Your task to perform on an android device: Open calendar and show me the fourth week of next month Image 0: 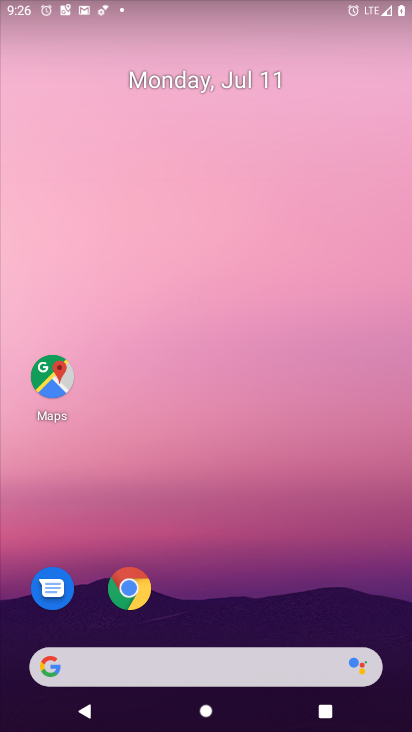
Step 0: drag from (203, 667) to (342, 125)
Your task to perform on an android device: Open calendar and show me the fourth week of next month Image 1: 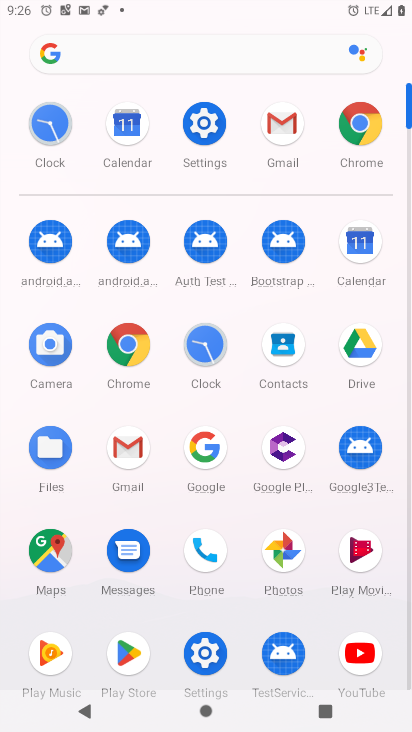
Step 1: click (363, 253)
Your task to perform on an android device: Open calendar and show me the fourth week of next month Image 2: 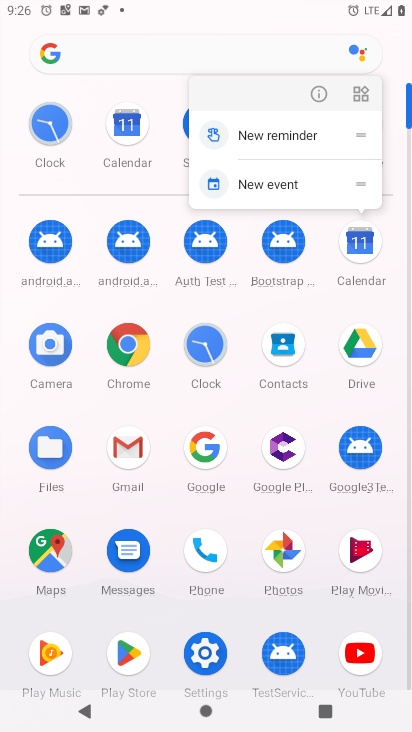
Step 2: click (365, 250)
Your task to perform on an android device: Open calendar and show me the fourth week of next month Image 3: 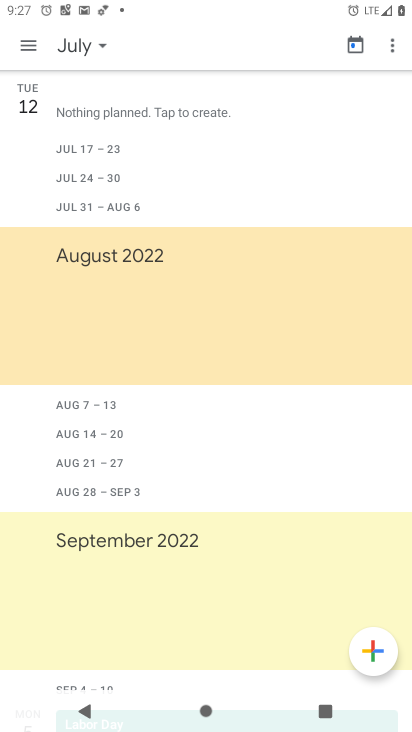
Step 3: click (74, 42)
Your task to perform on an android device: Open calendar and show me the fourth week of next month Image 4: 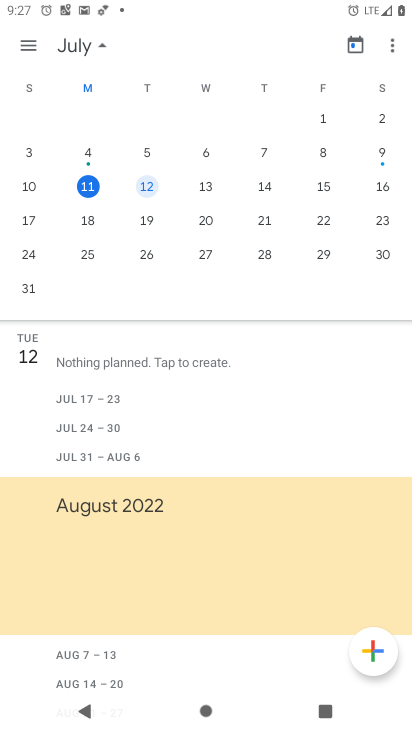
Step 4: drag from (340, 210) to (9, 225)
Your task to perform on an android device: Open calendar and show me the fourth week of next month Image 5: 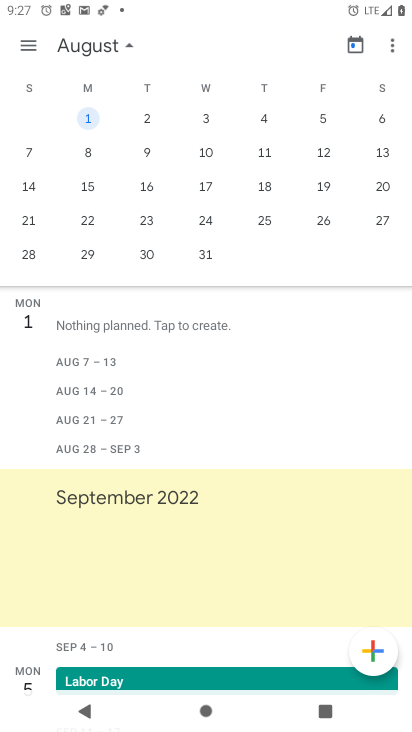
Step 5: click (24, 218)
Your task to perform on an android device: Open calendar and show me the fourth week of next month Image 6: 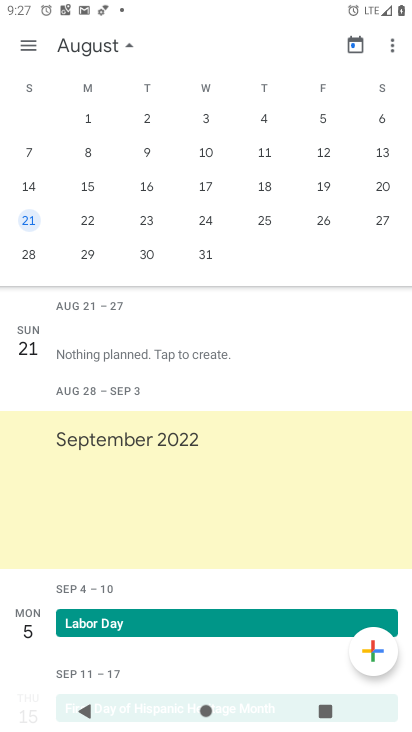
Step 6: click (31, 41)
Your task to perform on an android device: Open calendar and show me the fourth week of next month Image 7: 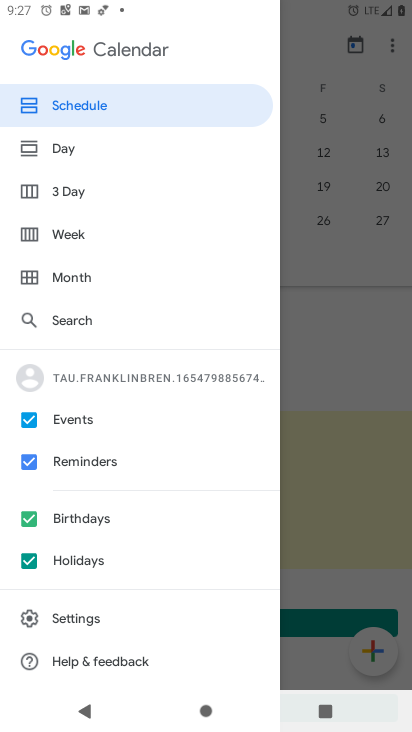
Step 7: click (74, 237)
Your task to perform on an android device: Open calendar and show me the fourth week of next month Image 8: 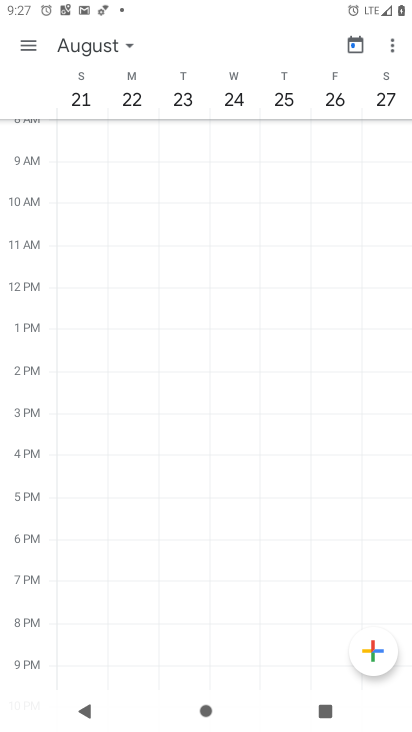
Step 8: click (29, 42)
Your task to perform on an android device: Open calendar and show me the fourth week of next month Image 9: 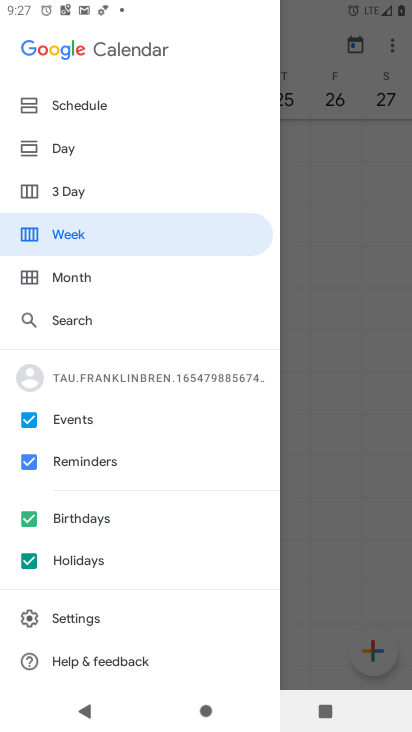
Step 9: click (62, 238)
Your task to perform on an android device: Open calendar and show me the fourth week of next month Image 10: 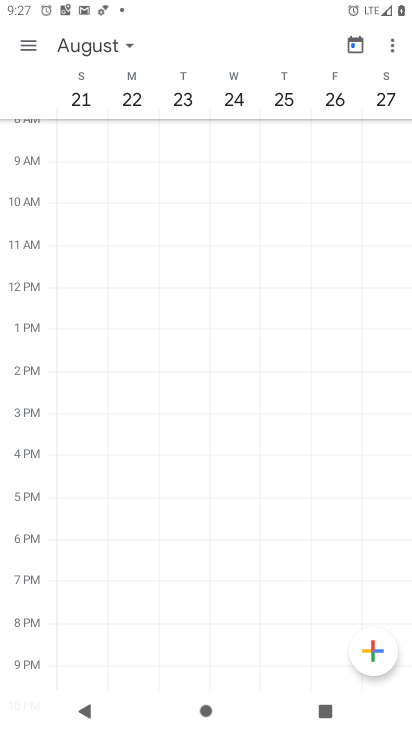
Step 10: task complete